Your task to perform on an android device: Add bose quietcomfort 35 to the cart on bestbuy Image 0: 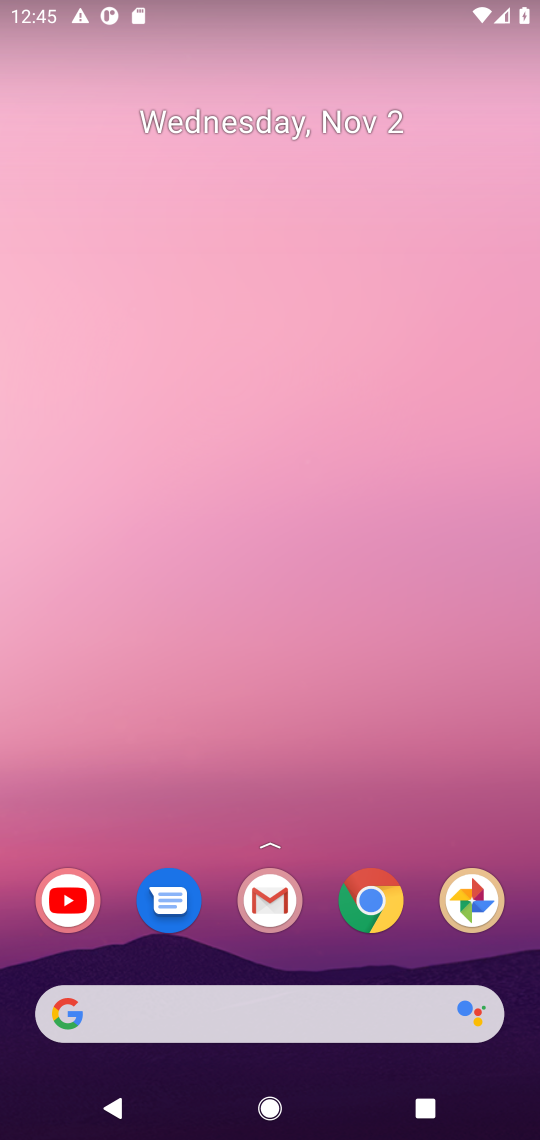
Step 0: click (353, 910)
Your task to perform on an android device: Add bose quietcomfort 35 to the cart on bestbuy Image 1: 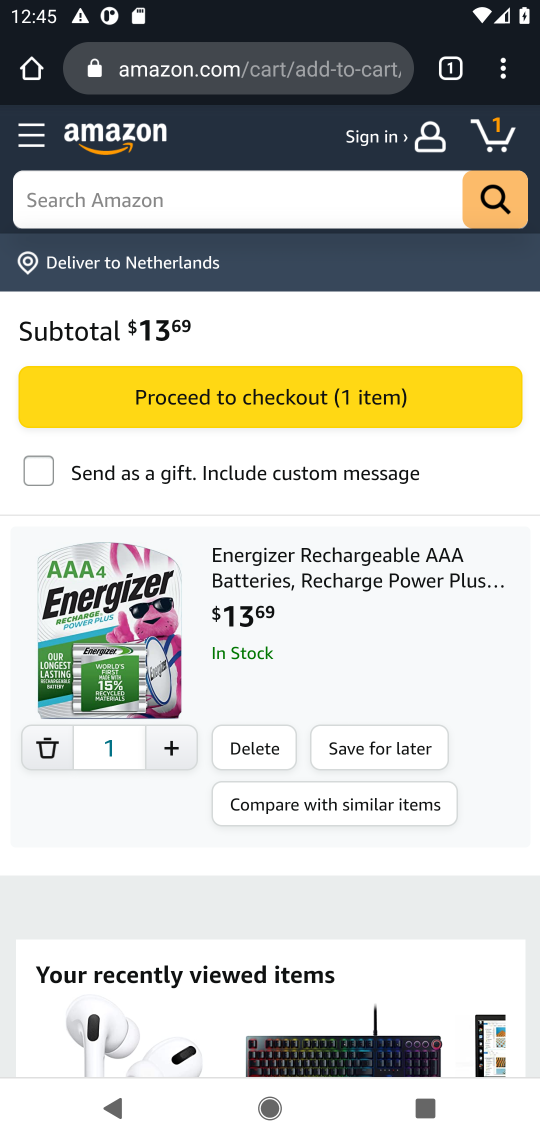
Step 1: click (269, 79)
Your task to perform on an android device: Add bose quietcomfort 35 to the cart on bestbuy Image 2: 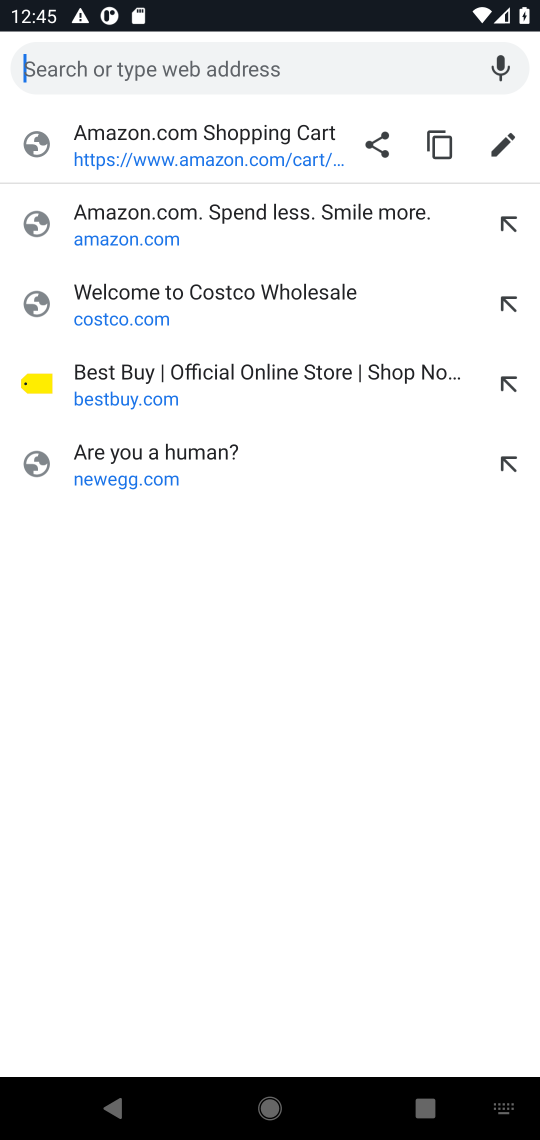
Step 2: click (152, 372)
Your task to perform on an android device: Add bose quietcomfort 35 to the cart on bestbuy Image 3: 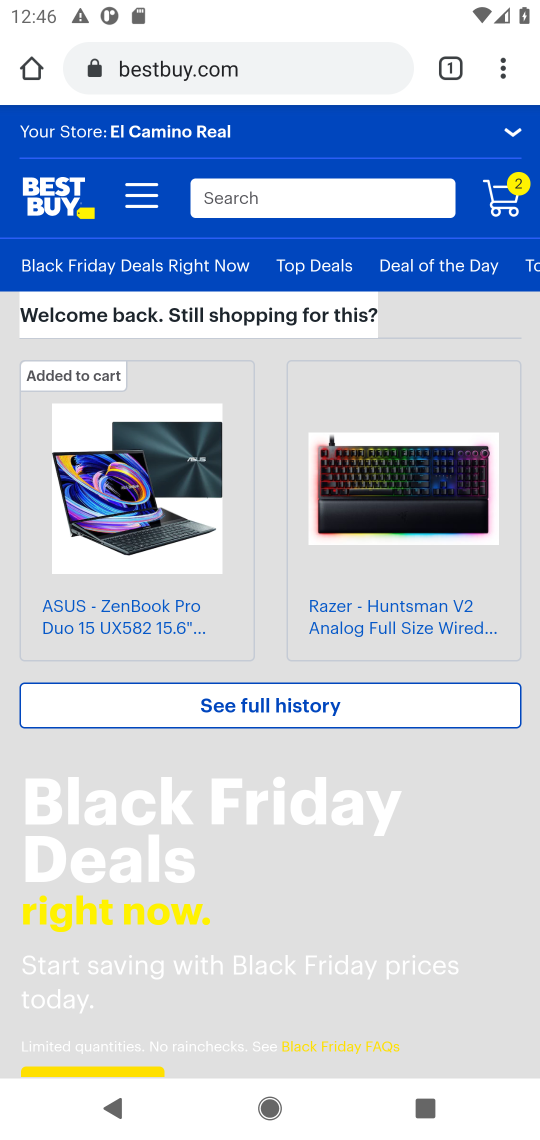
Step 3: click (277, 196)
Your task to perform on an android device: Add bose quietcomfort 35 to the cart on bestbuy Image 4: 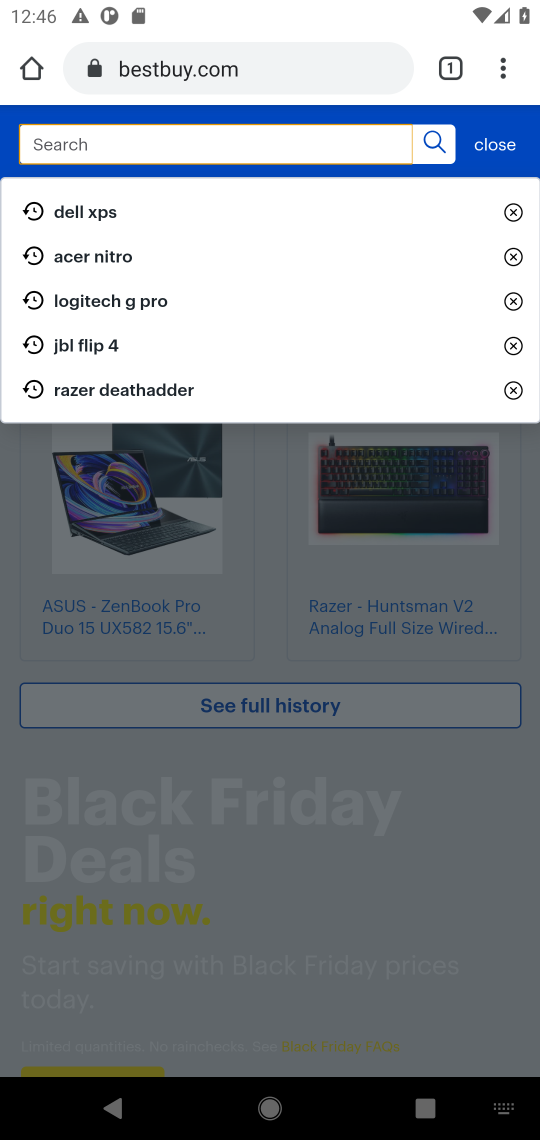
Step 4: type "bose quietcomfort 35 "
Your task to perform on an android device: Add bose quietcomfort 35 to the cart on bestbuy Image 5: 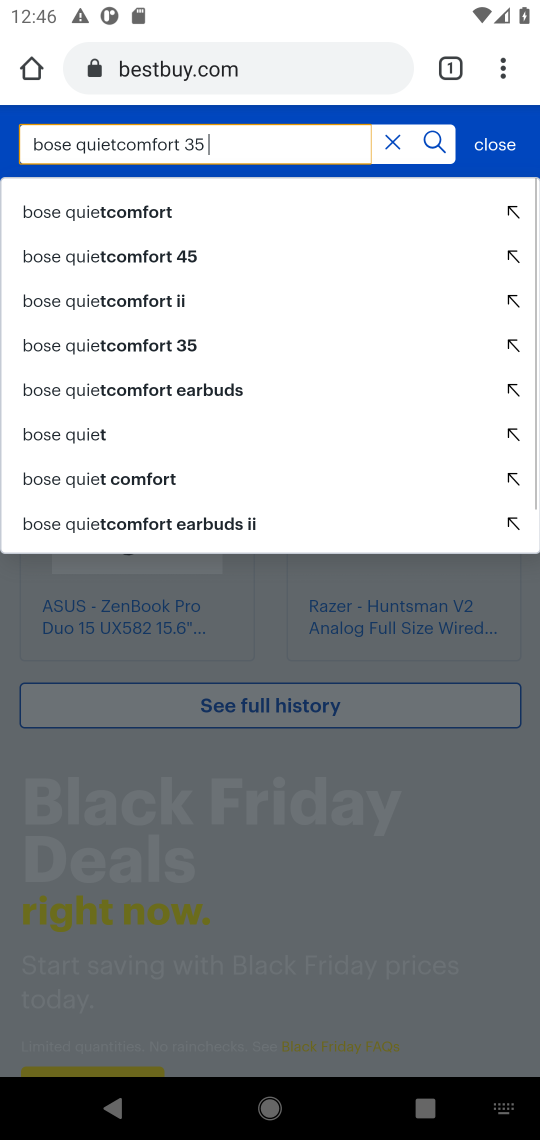
Step 5: type ""
Your task to perform on an android device: Add bose quietcomfort 35 to the cart on bestbuy Image 6: 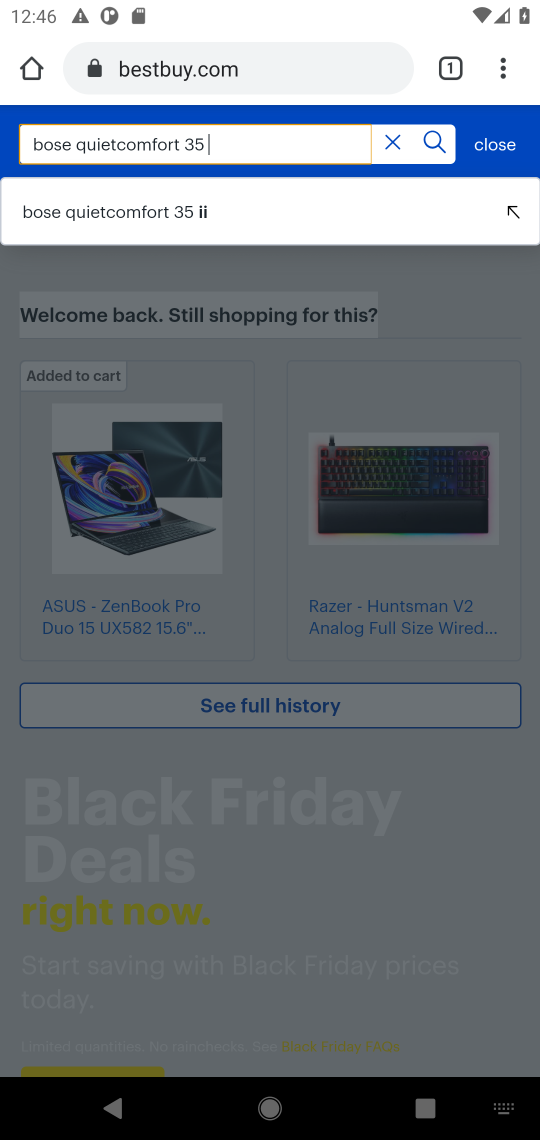
Step 6: click (488, 140)
Your task to perform on an android device: Add bose quietcomfort 35 to the cart on bestbuy Image 7: 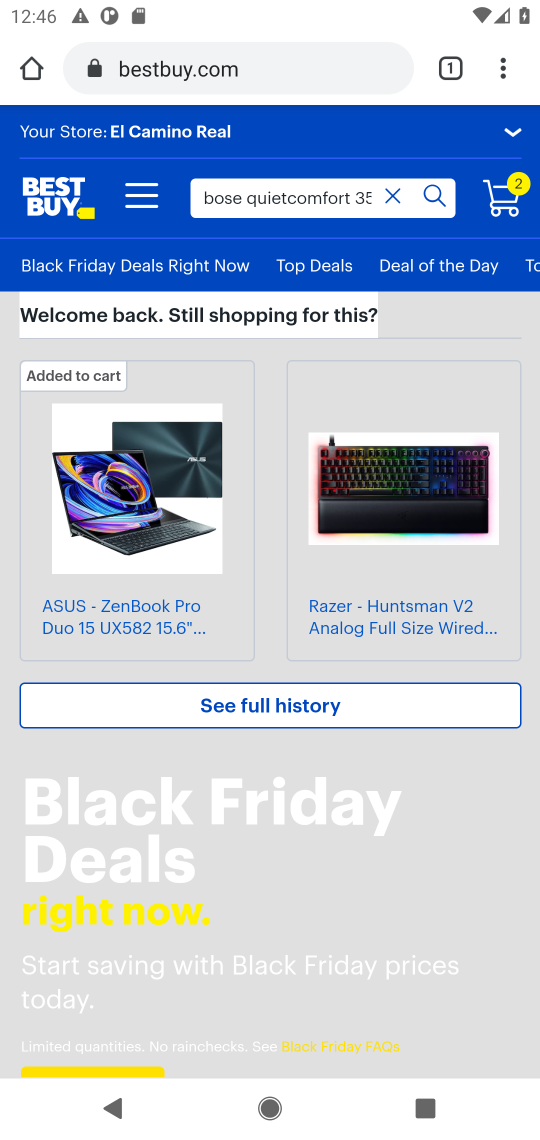
Step 7: click (432, 195)
Your task to perform on an android device: Add bose quietcomfort 35 to the cart on bestbuy Image 8: 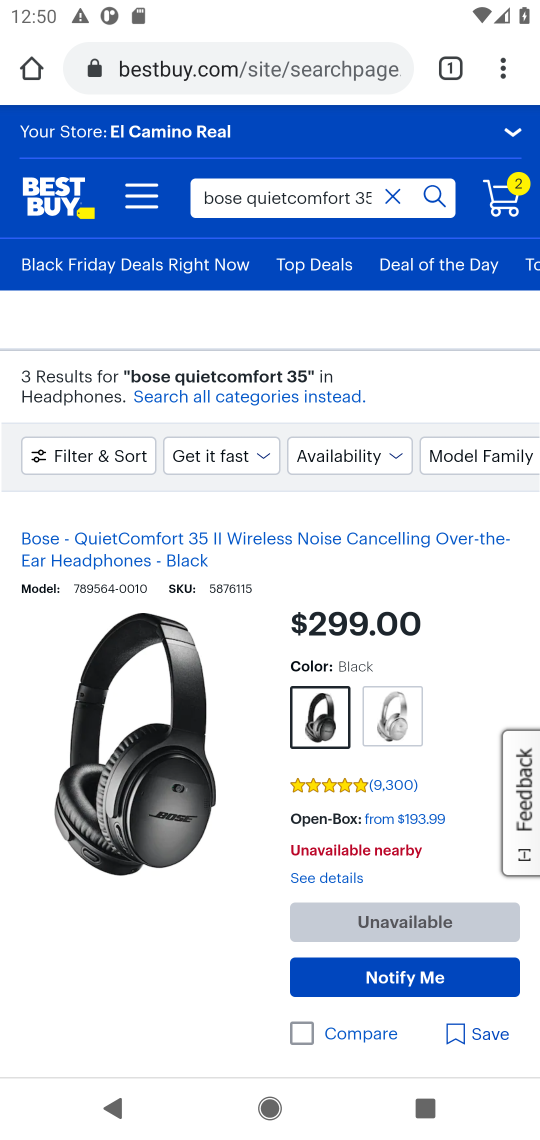
Step 8: task complete